Your task to perform on an android device: Go to Google maps Image 0: 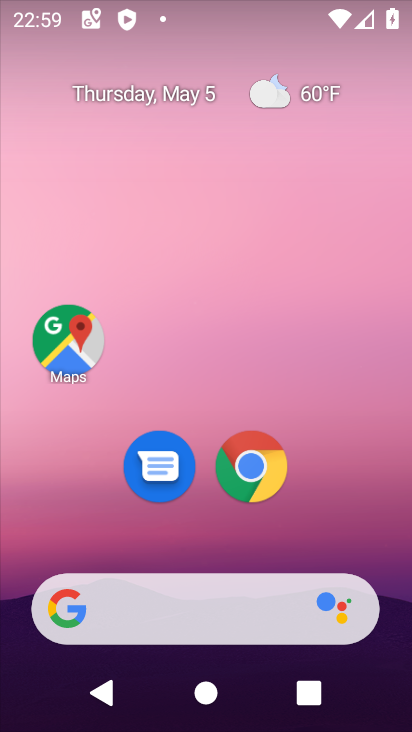
Step 0: click (67, 349)
Your task to perform on an android device: Go to Google maps Image 1: 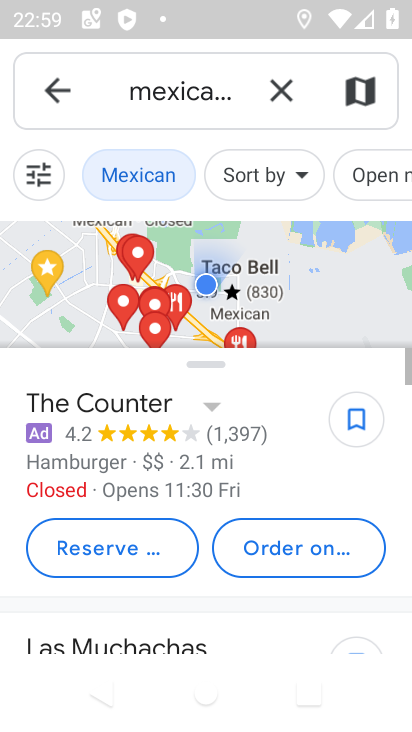
Step 1: click (259, 92)
Your task to perform on an android device: Go to Google maps Image 2: 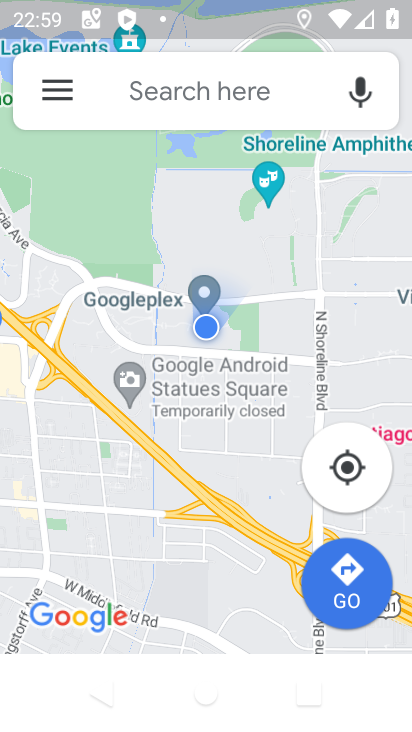
Step 2: task complete